Your task to perform on an android device: uninstall "File Manager" Image 0: 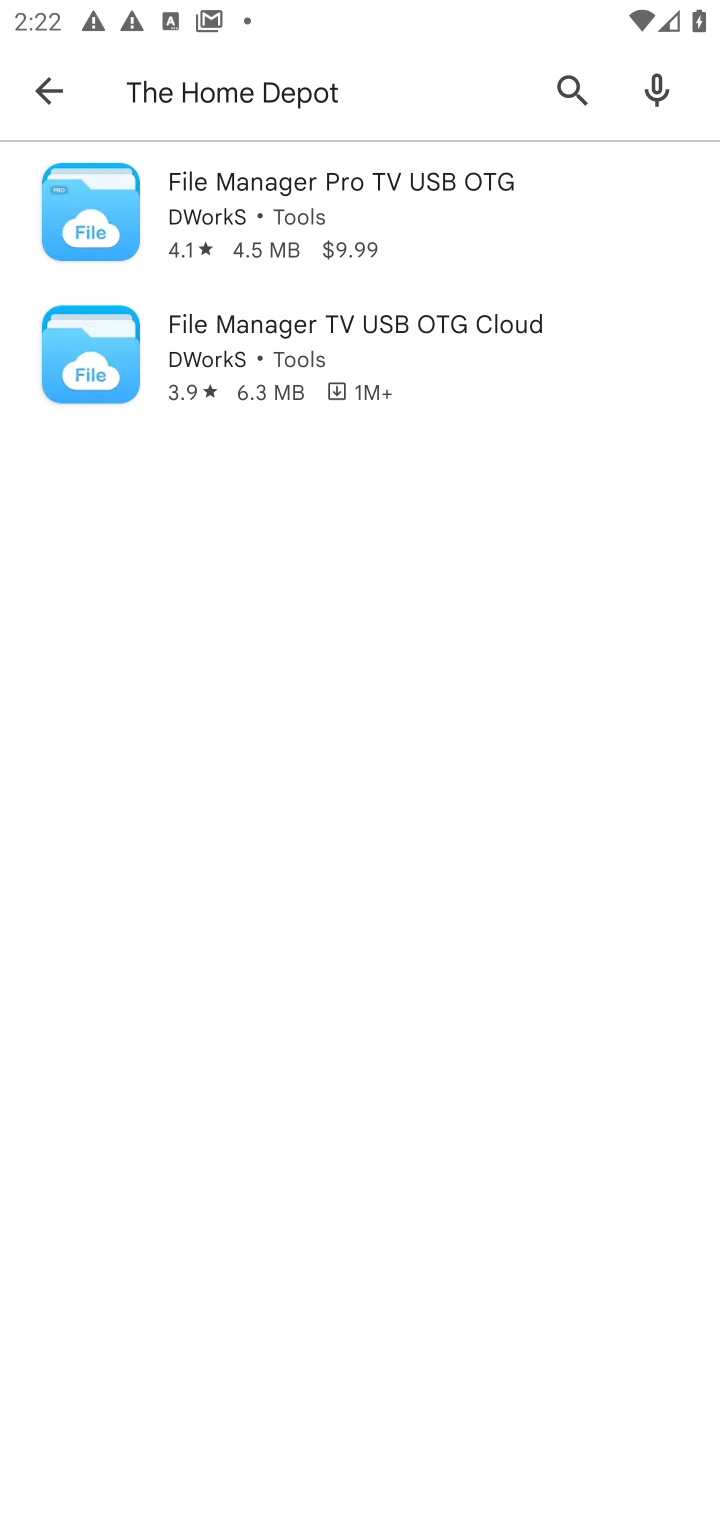
Step 0: click (484, 33)
Your task to perform on an android device: uninstall "File Manager" Image 1: 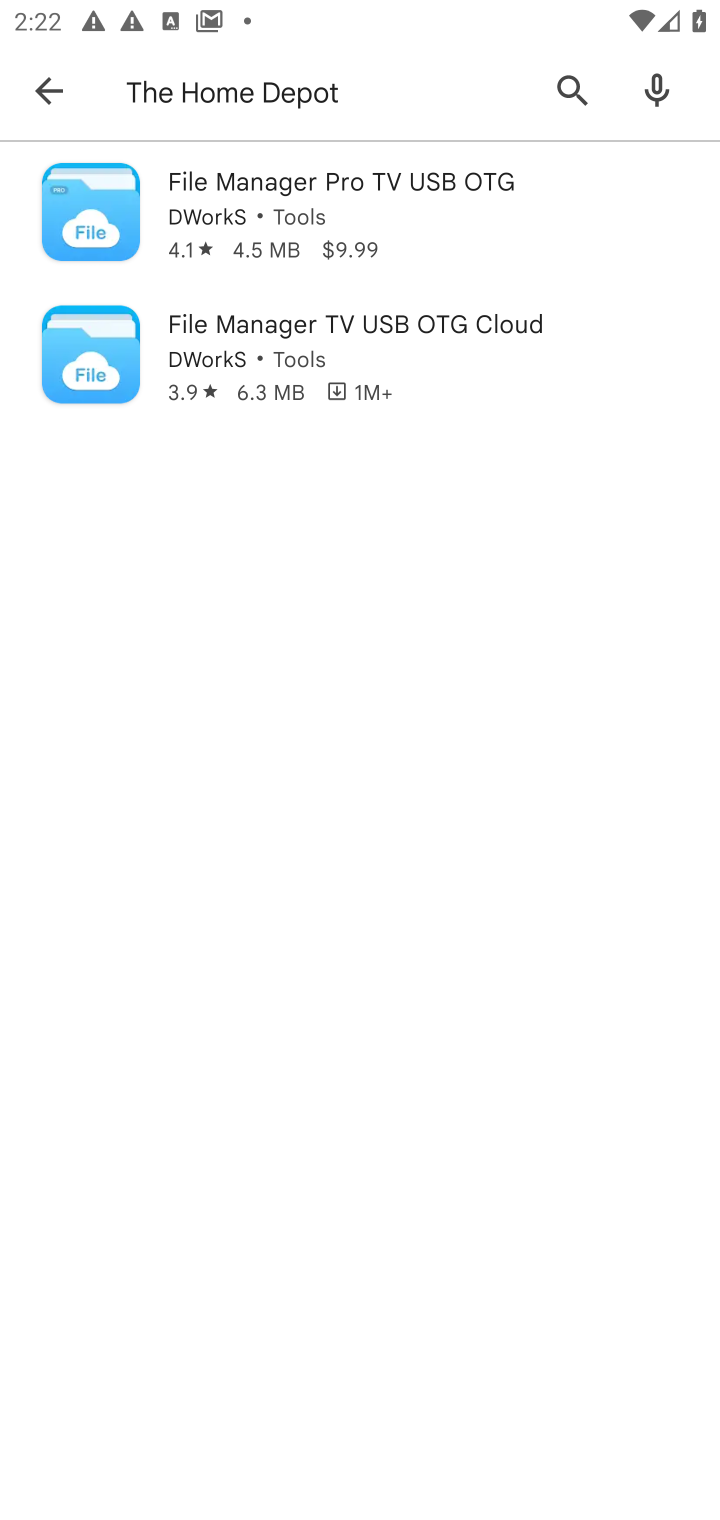
Step 1: click (418, 114)
Your task to perform on an android device: uninstall "File Manager" Image 2: 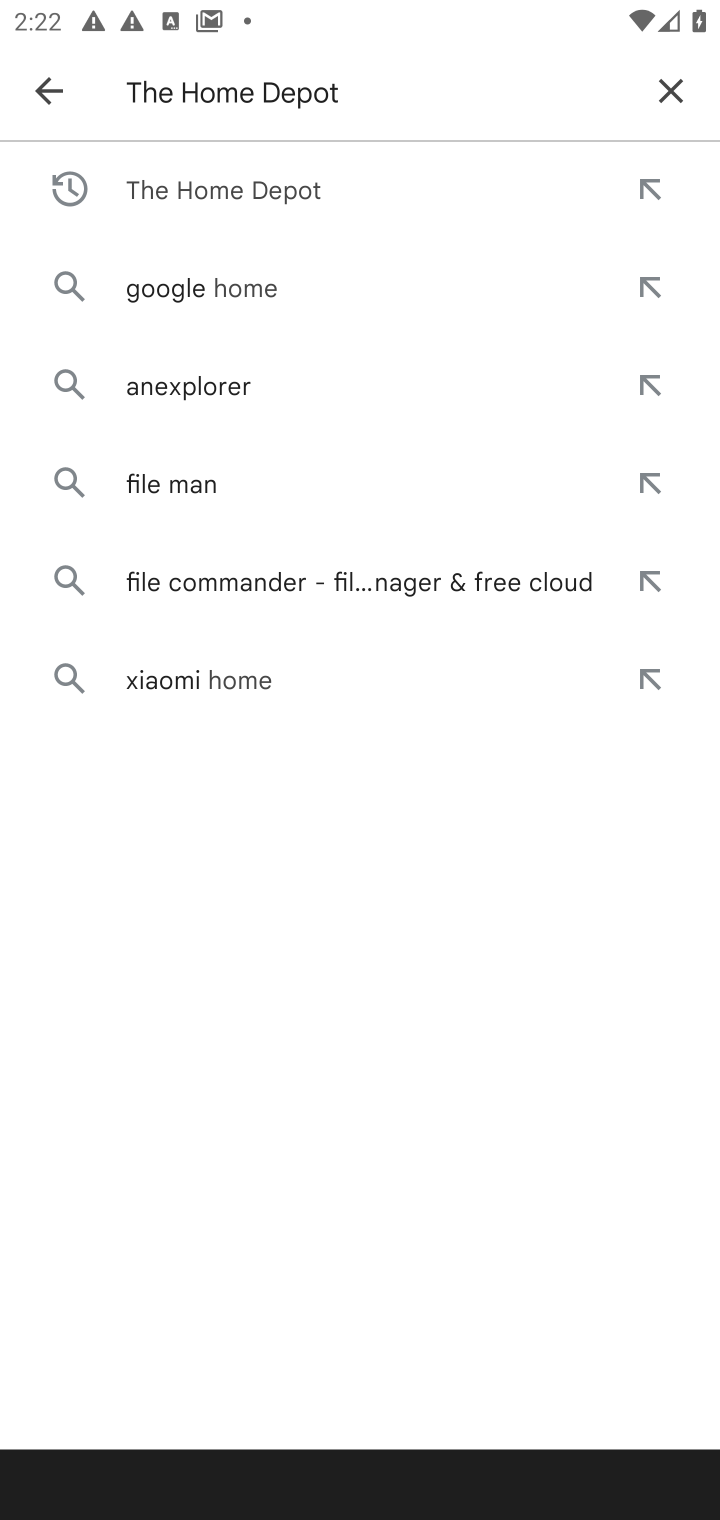
Step 2: click (672, 78)
Your task to perform on an android device: uninstall "File Manager" Image 3: 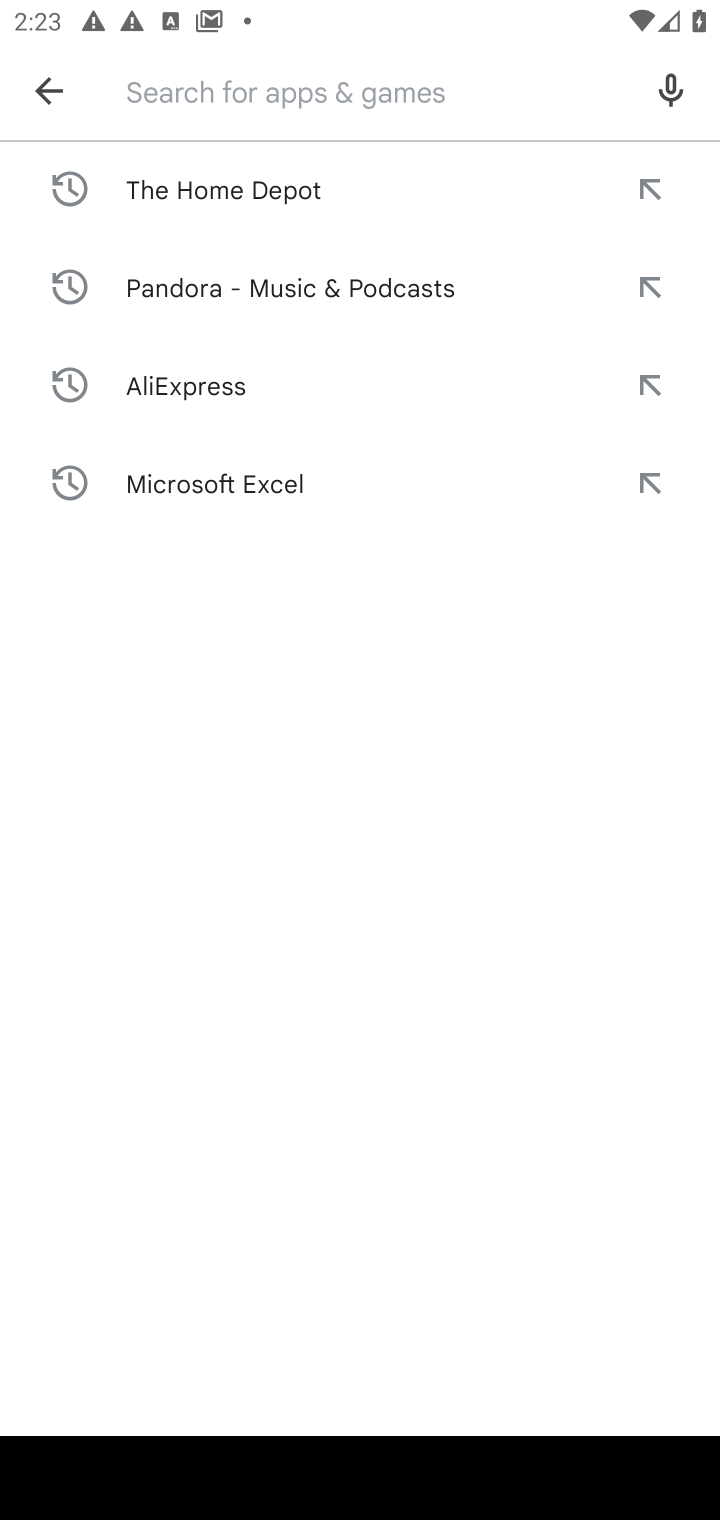
Step 3: type "File Manager"
Your task to perform on an android device: uninstall "File Manager" Image 4: 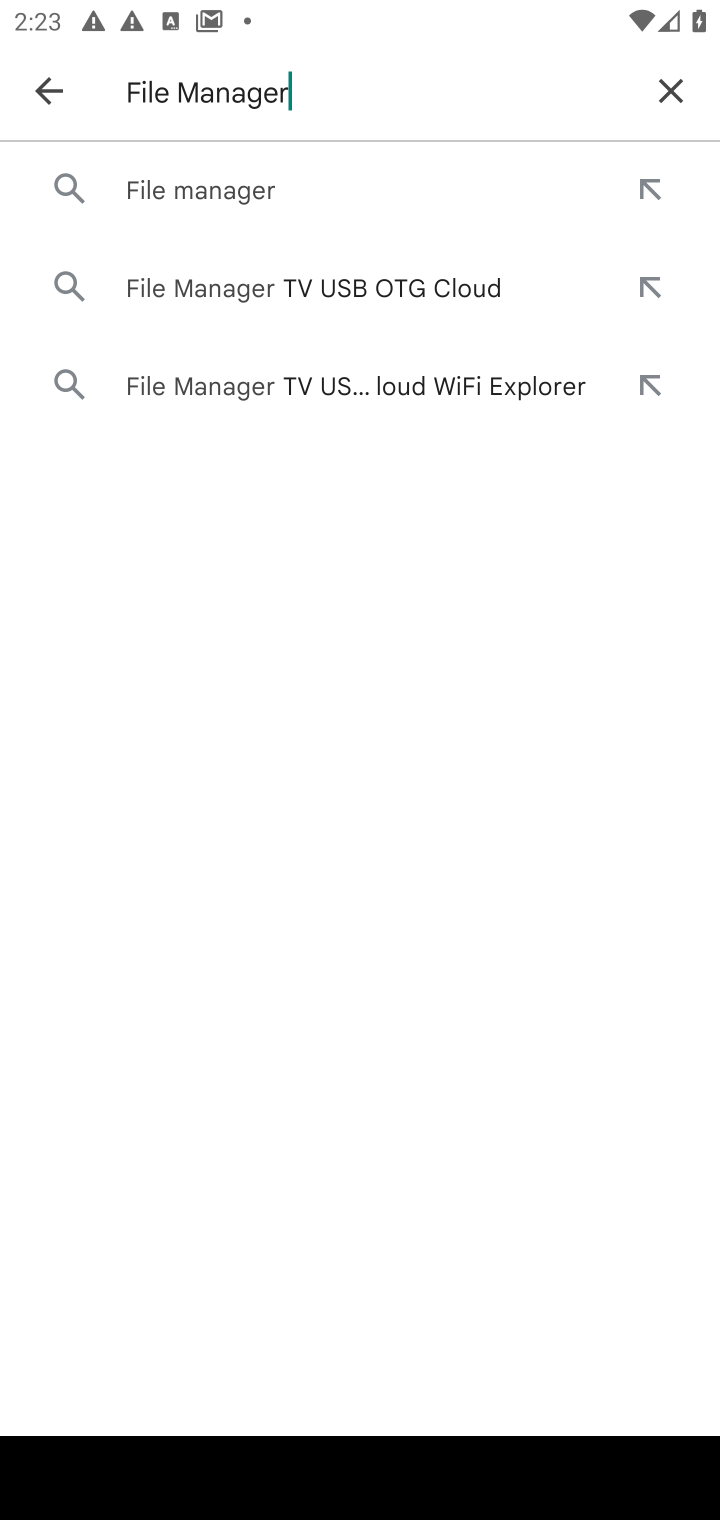
Step 4: click (196, 214)
Your task to perform on an android device: uninstall "File Manager" Image 5: 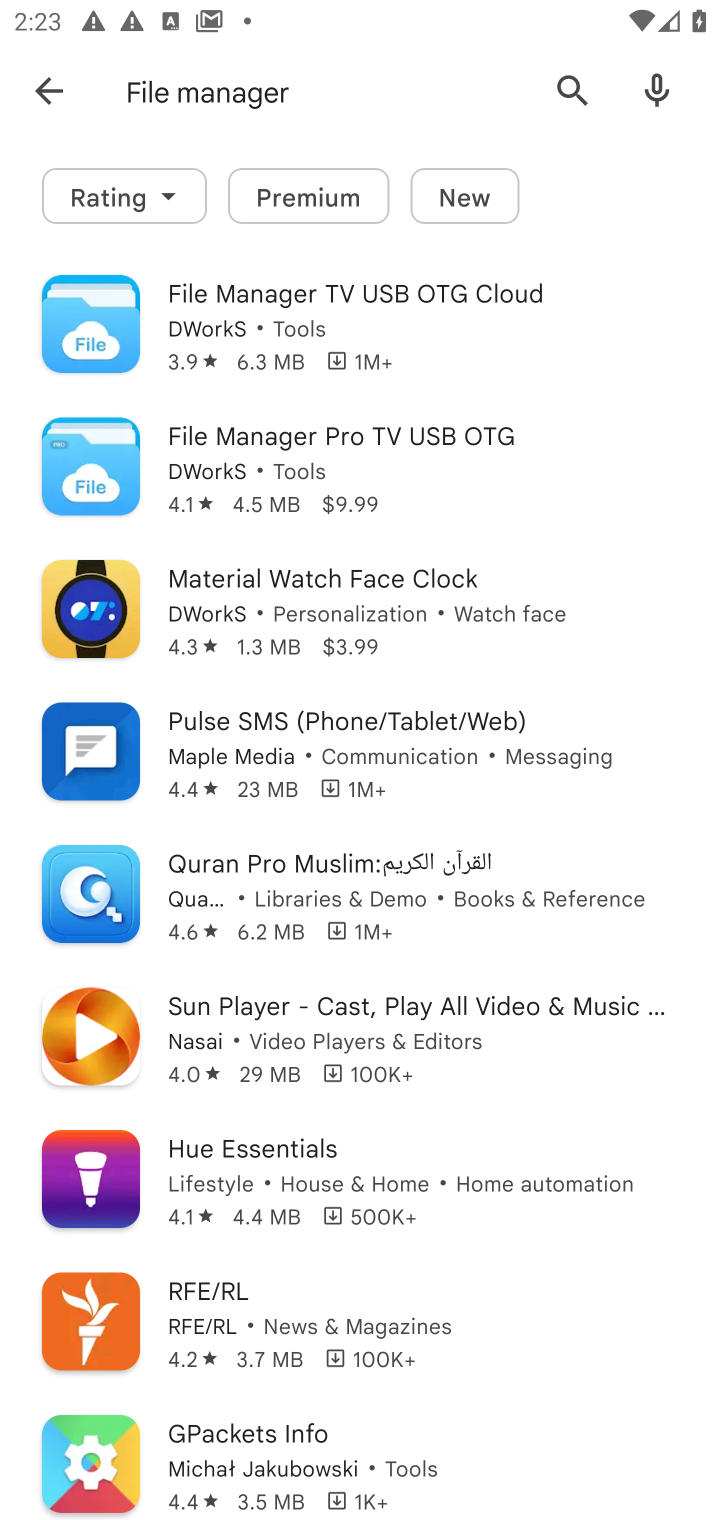
Step 5: task complete